Your task to perform on an android device: Open Yahoo.com Image 0: 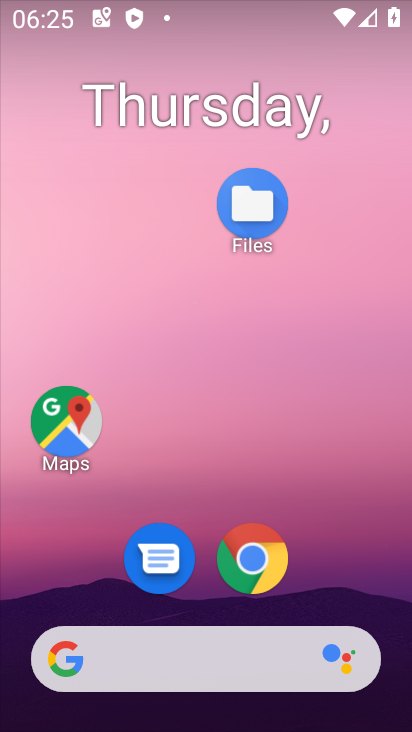
Step 0: drag from (307, 594) to (260, 95)
Your task to perform on an android device: Open Yahoo.com Image 1: 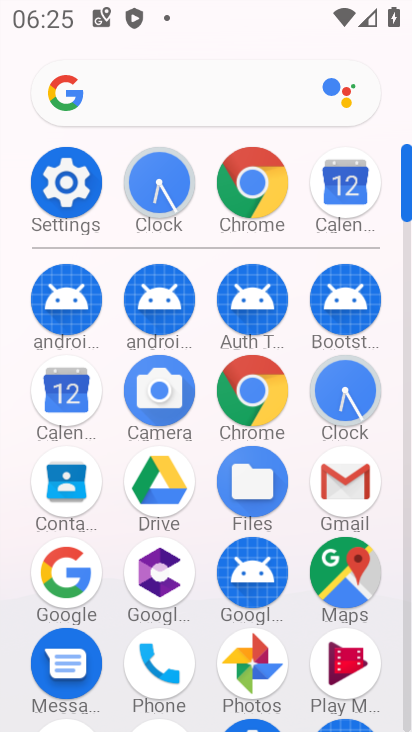
Step 1: click (244, 192)
Your task to perform on an android device: Open Yahoo.com Image 2: 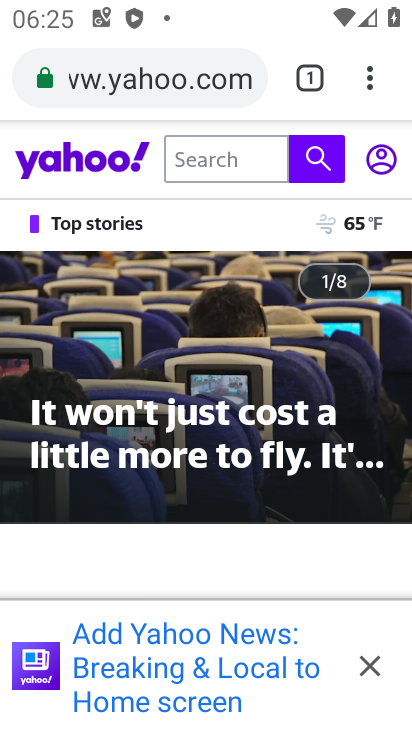
Step 2: task complete